Your task to perform on an android device: toggle location history Image 0: 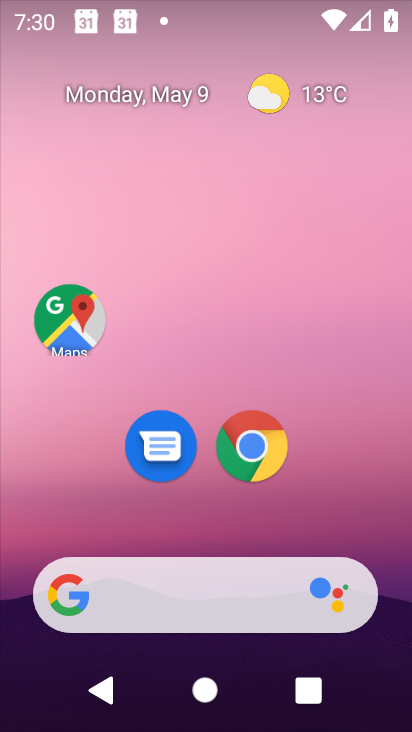
Step 0: drag from (281, 505) to (286, 553)
Your task to perform on an android device: toggle location history Image 1: 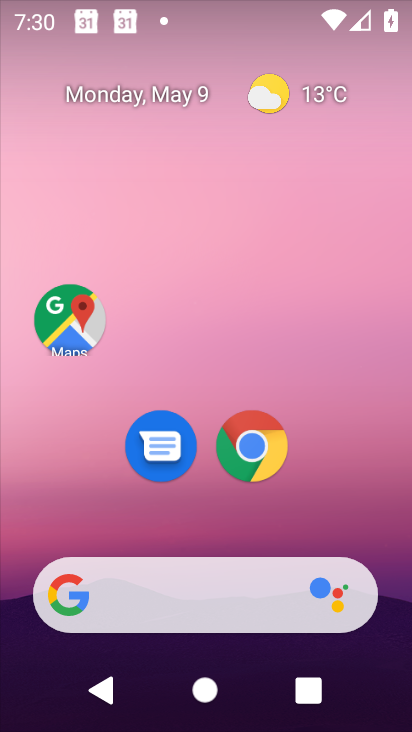
Step 1: drag from (326, 483) to (325, 220)
Your task to perform on an android device: toggle location history Image 2: 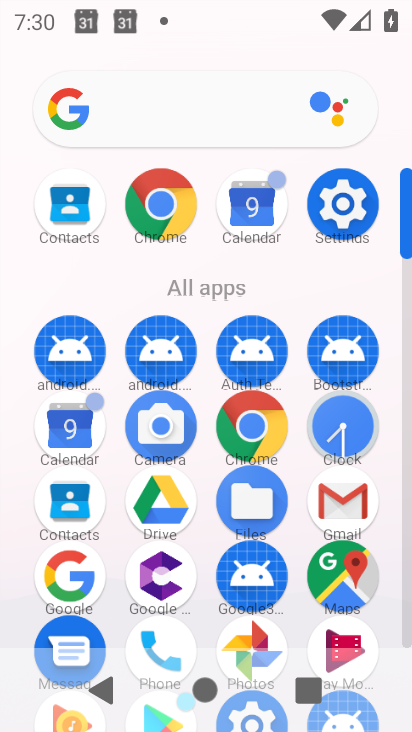
Step 2: click (359, 207)
Your task to perform on an android device: toggle location history Image 3: 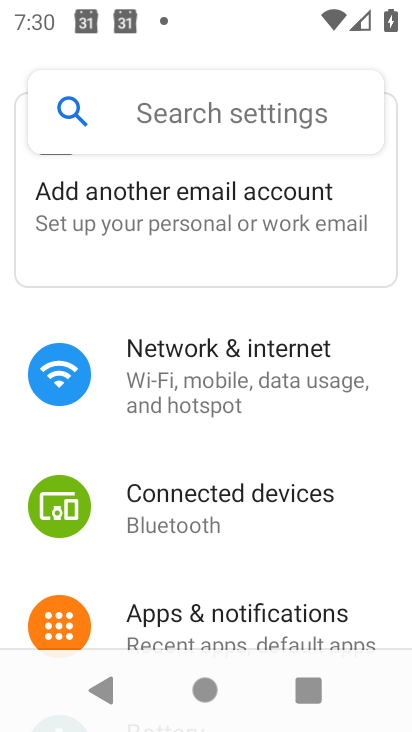
Step 3: drag from (247, 544) to (282, 260)
Your task to perform on an android device: toggle location history Image 4: 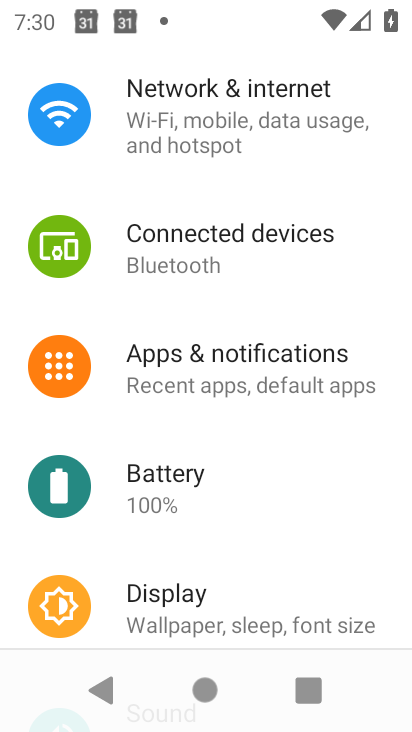
Step 4: drag from (293, 540) to (306, 116)
Your task to perform on an android device: toggle location history Image 5: 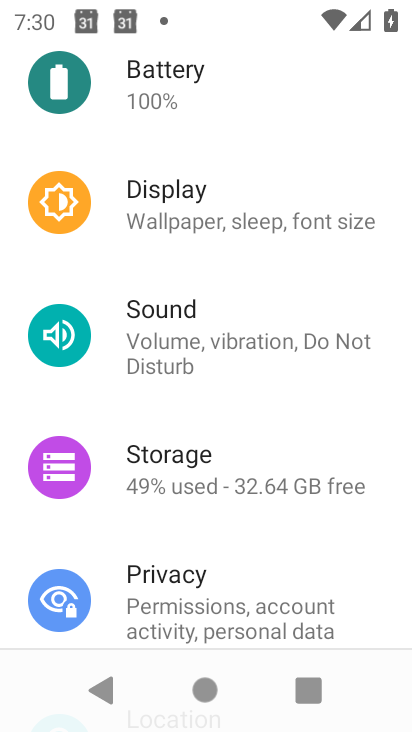
Step 5: drag from (224, 517) to (277, 102)
Your task to perform on an android device: toggle location history Image 6: 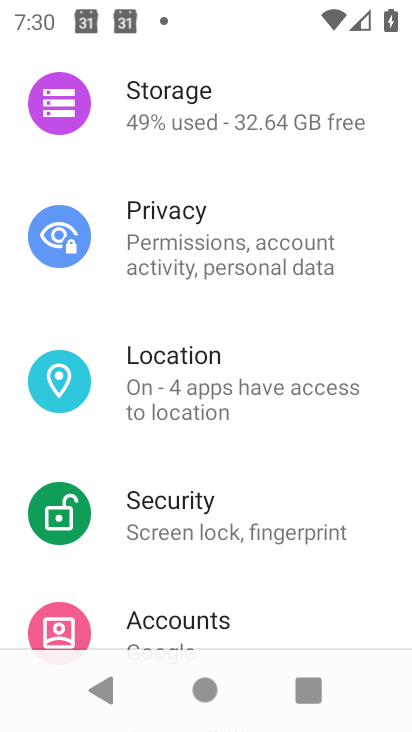
Step 6: click (242, 354)
Your task to perform on an android device: toggle location history Image 7: 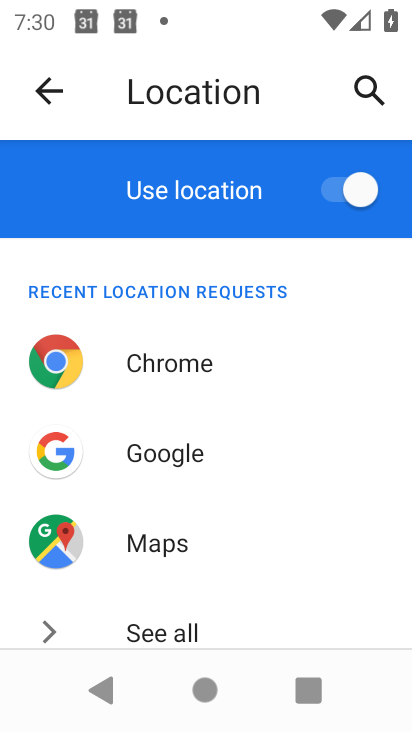
Step 7: drag from (268, 591) to (314, 134)
Your task to perform on an android device: toggle location history Image 8: 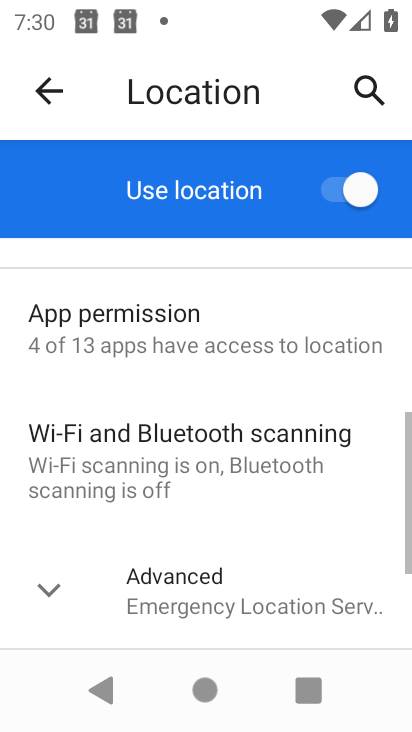
Step 8: click (56, 573)
Your task to perform on an android device: toggle location history Image 9: 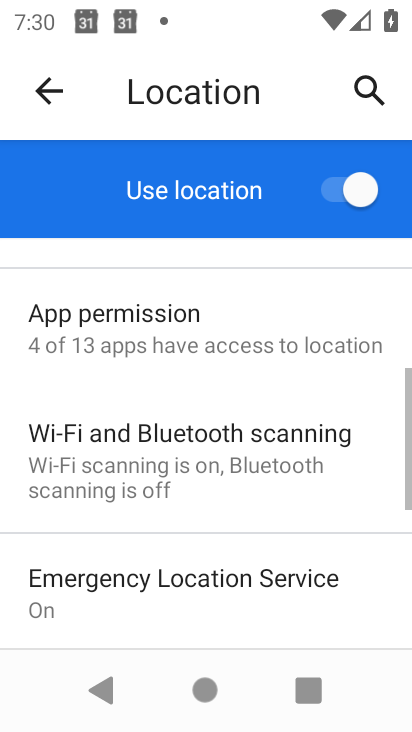
Step 9: drag from (222, 599) to (282, 283)
Your task to perform on an android device: toggle location history Image 10: 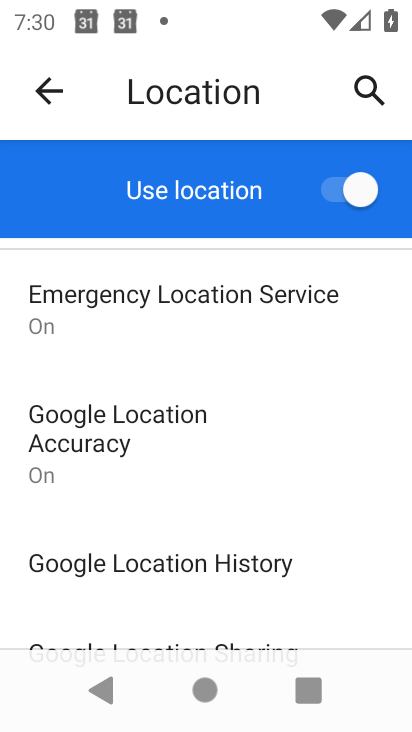
Step 10: click (281, 572)
Your task to perform on an android device: toggle location history Image 11: 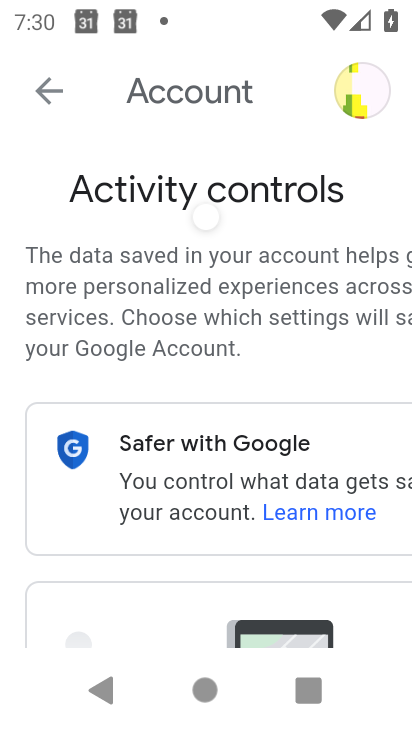
Step 11: drag from (252, 459) to (321, 95)
Your task to perform on an android device: toggle location history Image 12: 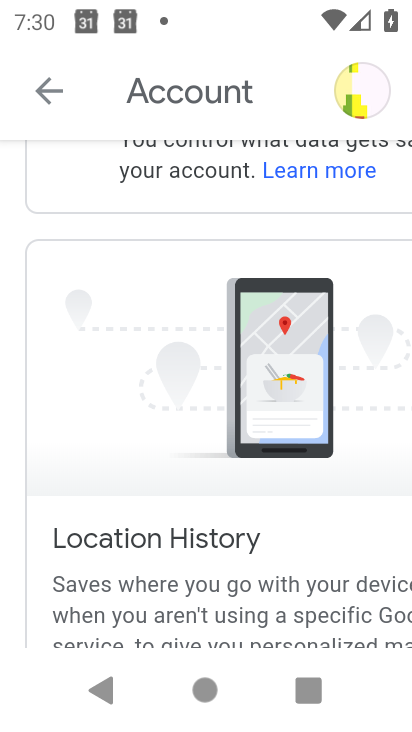
Step 12: drag from (281, 517) to (158, 451)
Your task to perform on an android device: toggle location history Image 13: 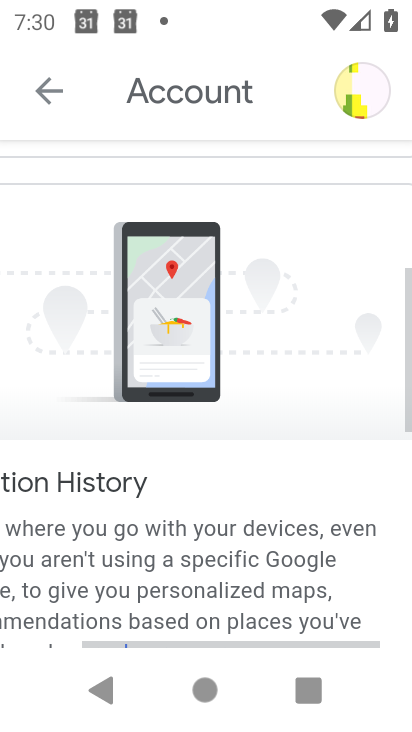
Step 13: drag from (157, 455) to (233, 180)
Your task to perform on an android device: toggle location history Image 14: 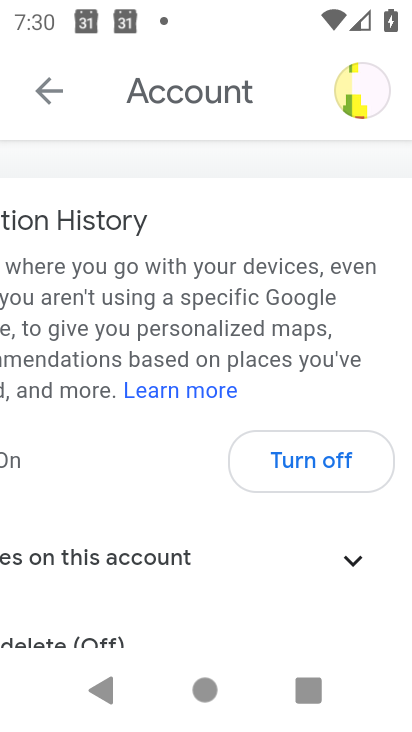
Step 14: click (282, 471)
Your task to perform on an android device: toggle location history Image 15: 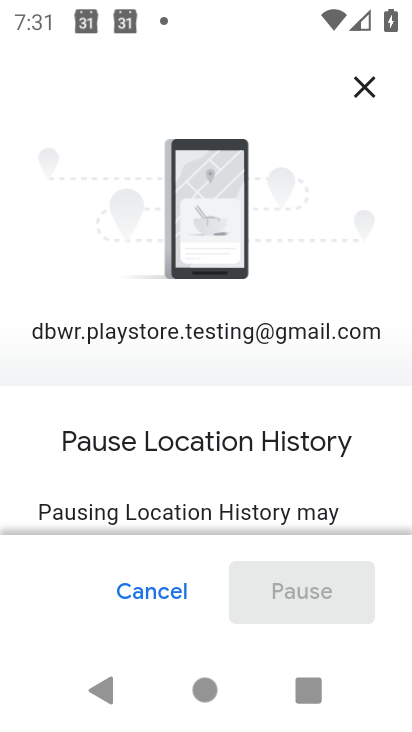
Step 15: drag from (286, 447) to (328, 187)
Your task to perform on an android device: toggle location history Image 16: 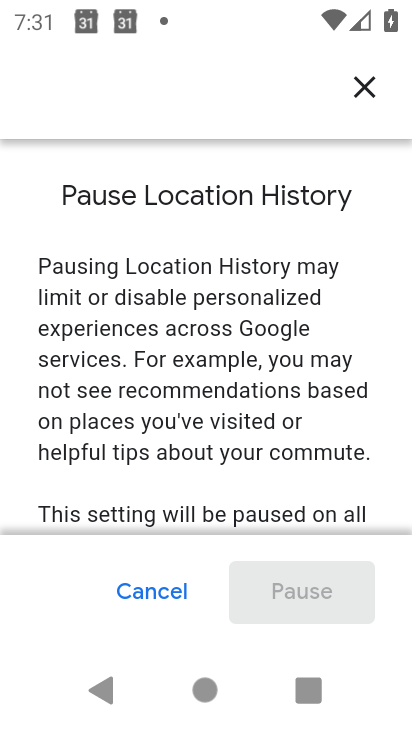
Step 16: drag from (309, 466) to (360, 172)
Your task to perform on an android device: toggle location history Image 17: 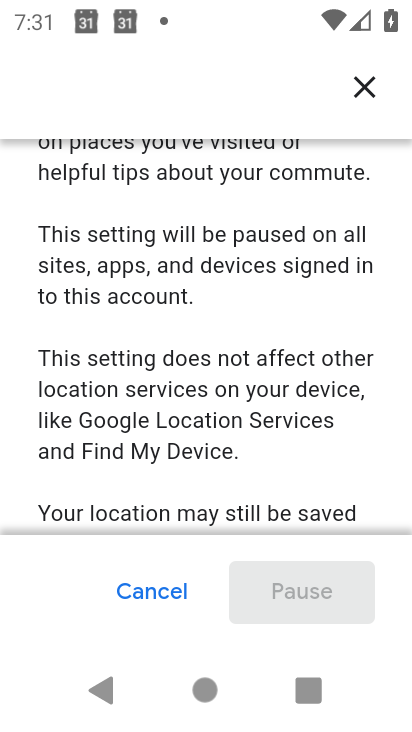
Step 17: drag from (361, 399) to (405, 61)
Your task to perform on an android device: toggle location history Image 18: 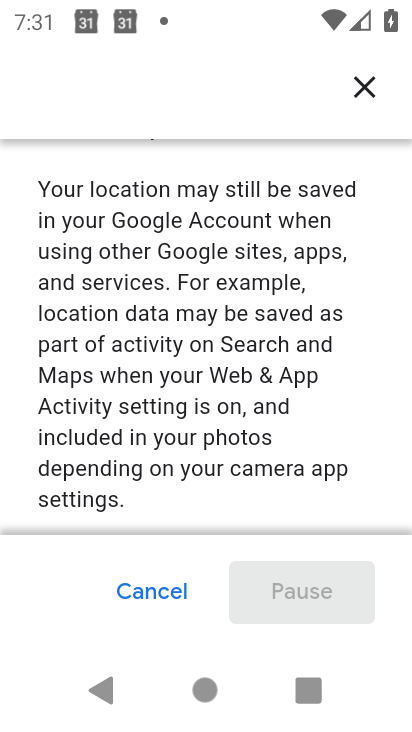
Step 18: drag from (308, 460) to (320, 202)
Your task to perform on an android device: toggle location history Image 19: 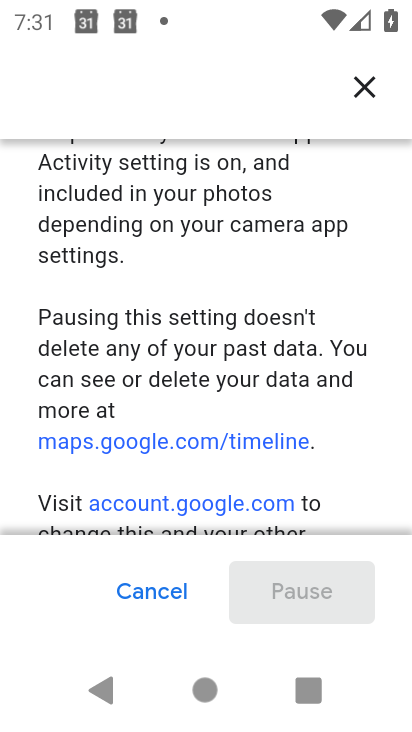
Step 19: drag from (302, 488) to (316, 196)
Your task to perform on an android device: toggle location history Image 20: 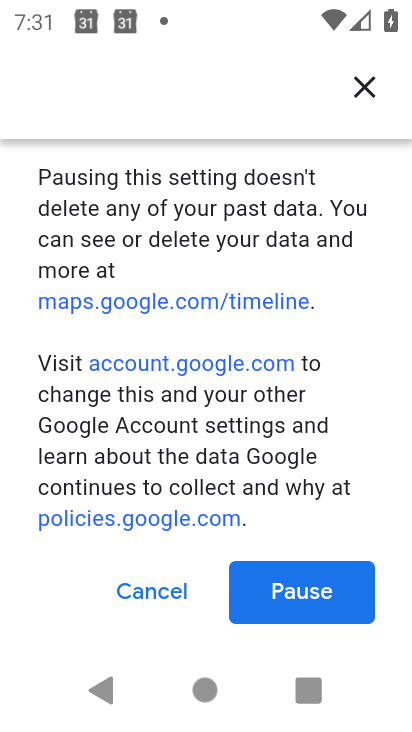
Step 20: click (323, 587)
Your task to perform on an android device: toggle location history Image 21: 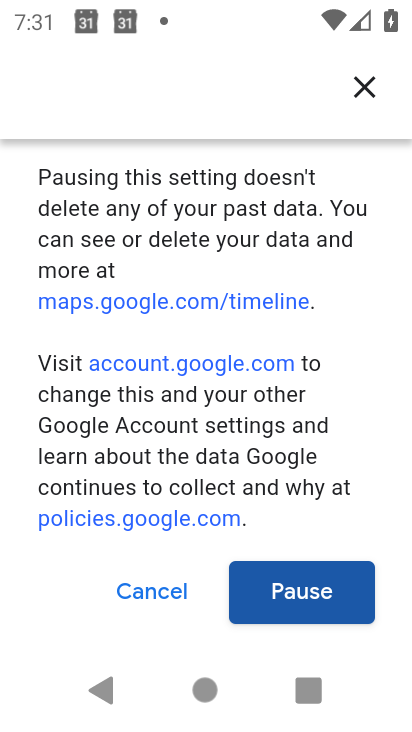
Step 21: click (335, 592)
Your task to perform on an android device: toggle location history Image 22: 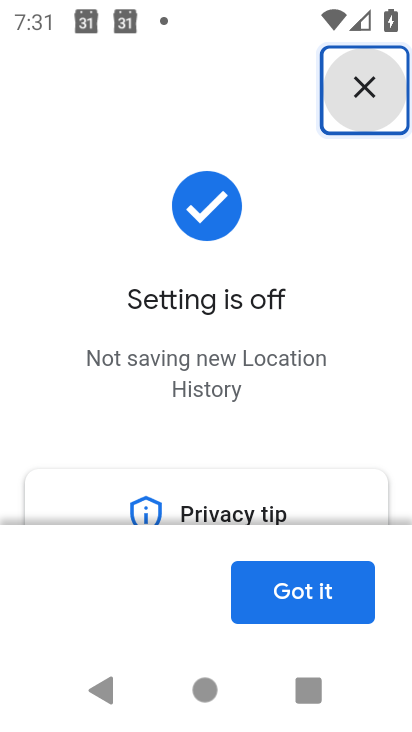
Step 22: drag from (305, 438) to (340, 232)
Your task to perform on an android device: toggle location history Image 23: 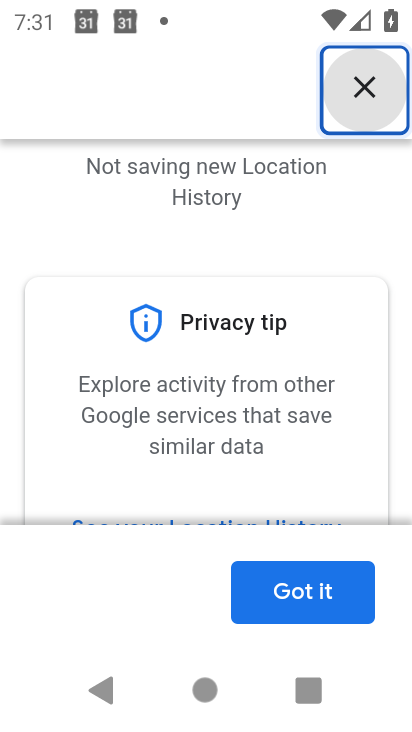
Step 23: click (338, 593)
Your task to perform on an android device: toggle location history Image 24: 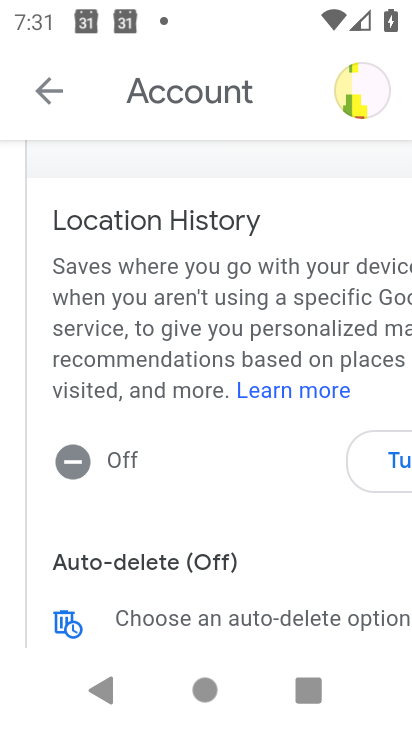
Step 24: task complete